Your task to perform on an android device: open app "WhatsApp Messenger" Image 0: 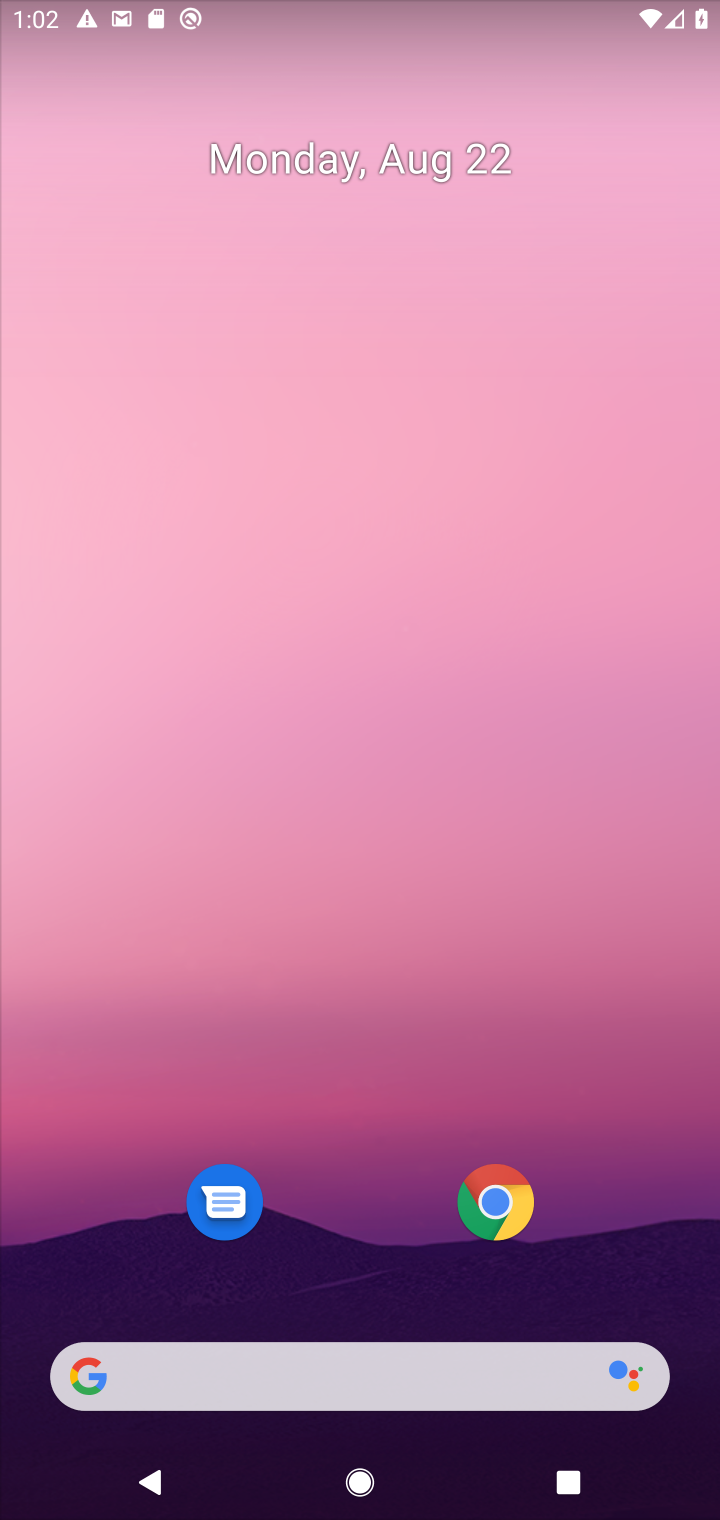
Step 0: drag from (394, 1131) to (391, 248)
Your task to perform on an android device: open app "WhatsApp Messenger" Image 1: 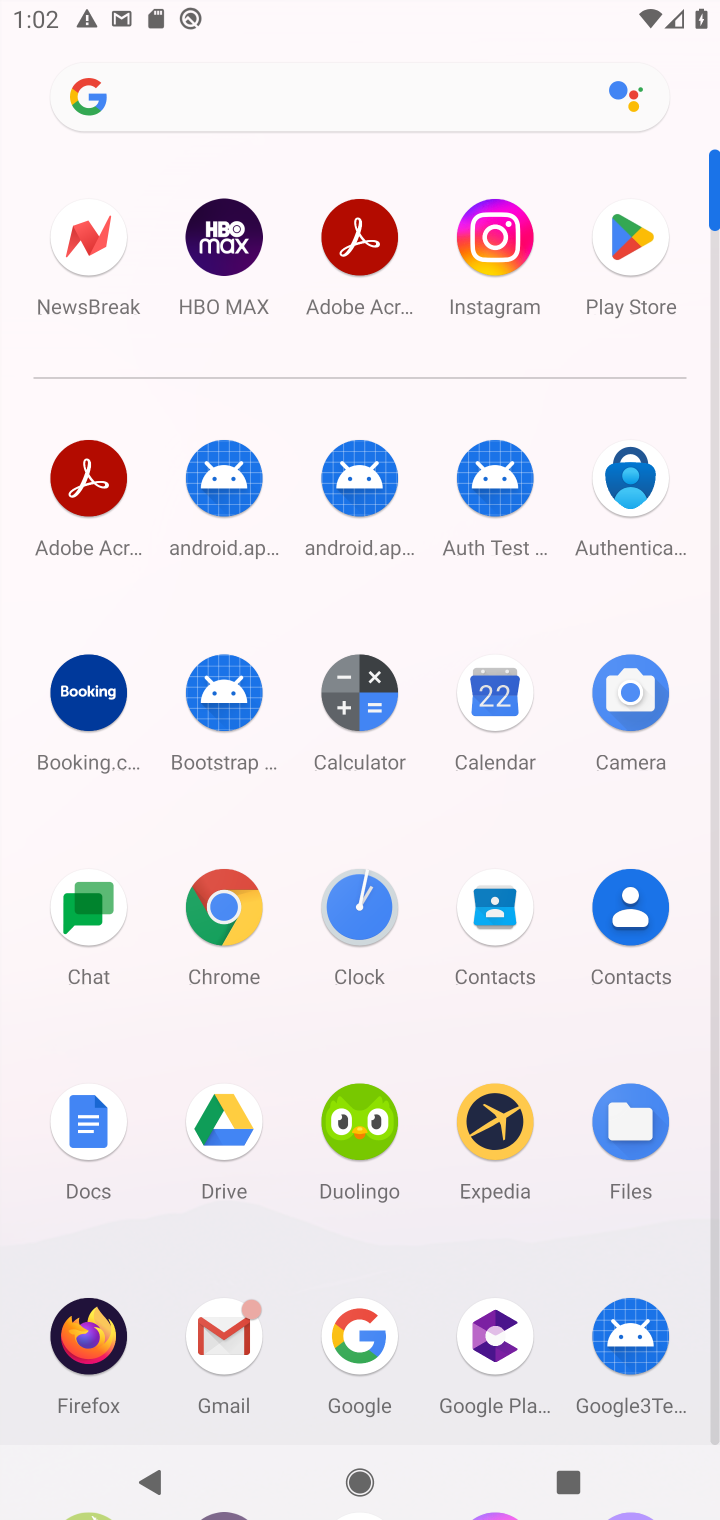
Step 1: click (631, 236)
Your task to perform on an android device: open app "WhatsApp Messenger" Image 2: 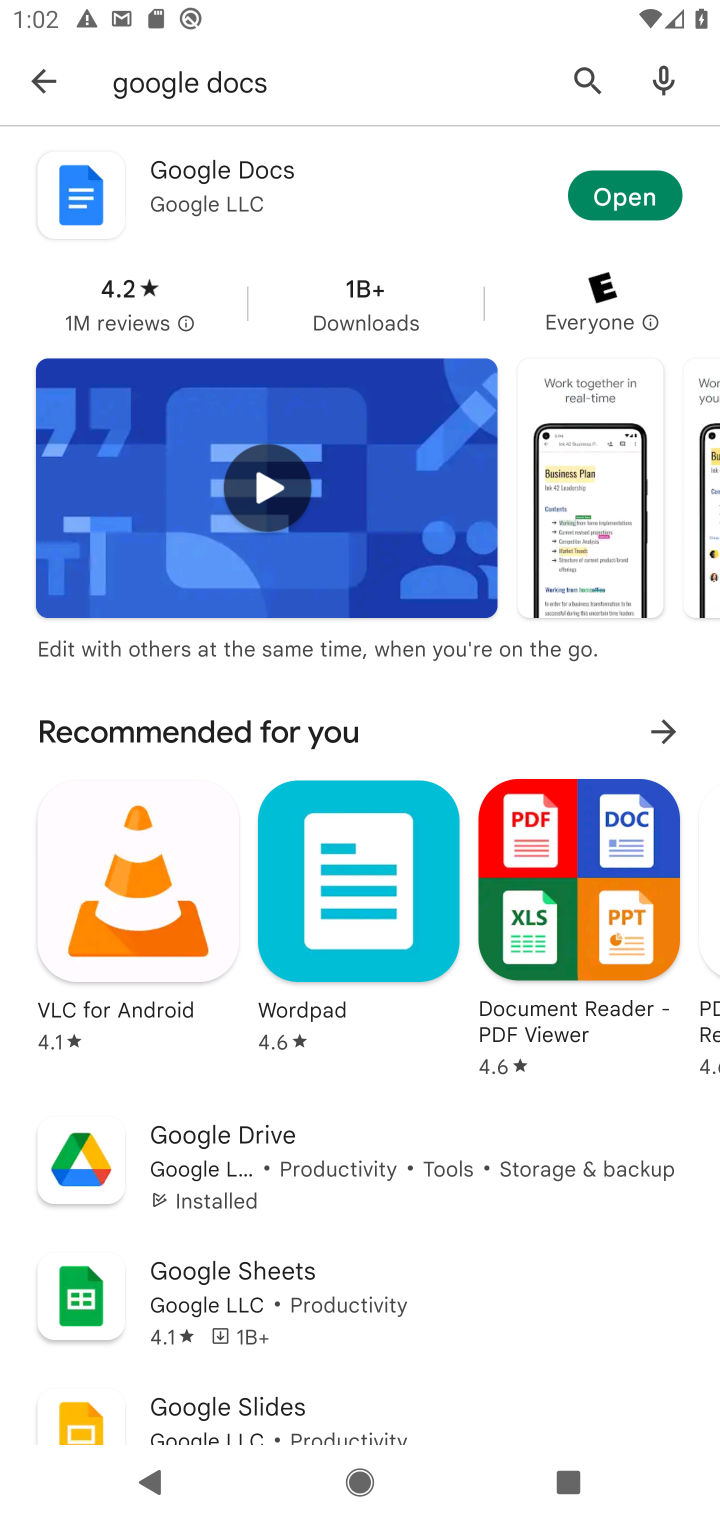
Step 2: click (581, 76)
Your task to perform on an android device: open app "WhatsApp Messenger" Image 3: 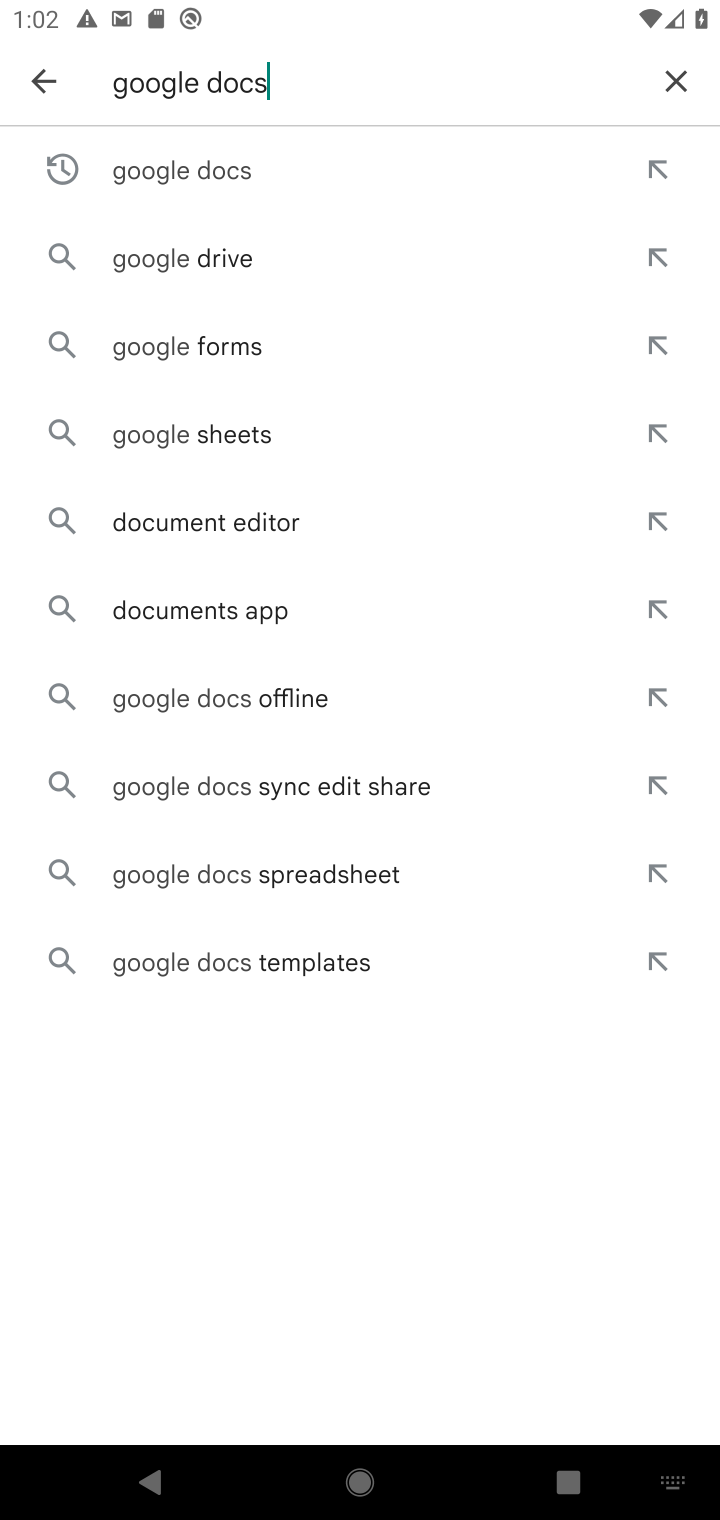
Step 3: click (673, 72)
Your task to perform on an android device: open app "WhatsApp Messenger" Image 4: 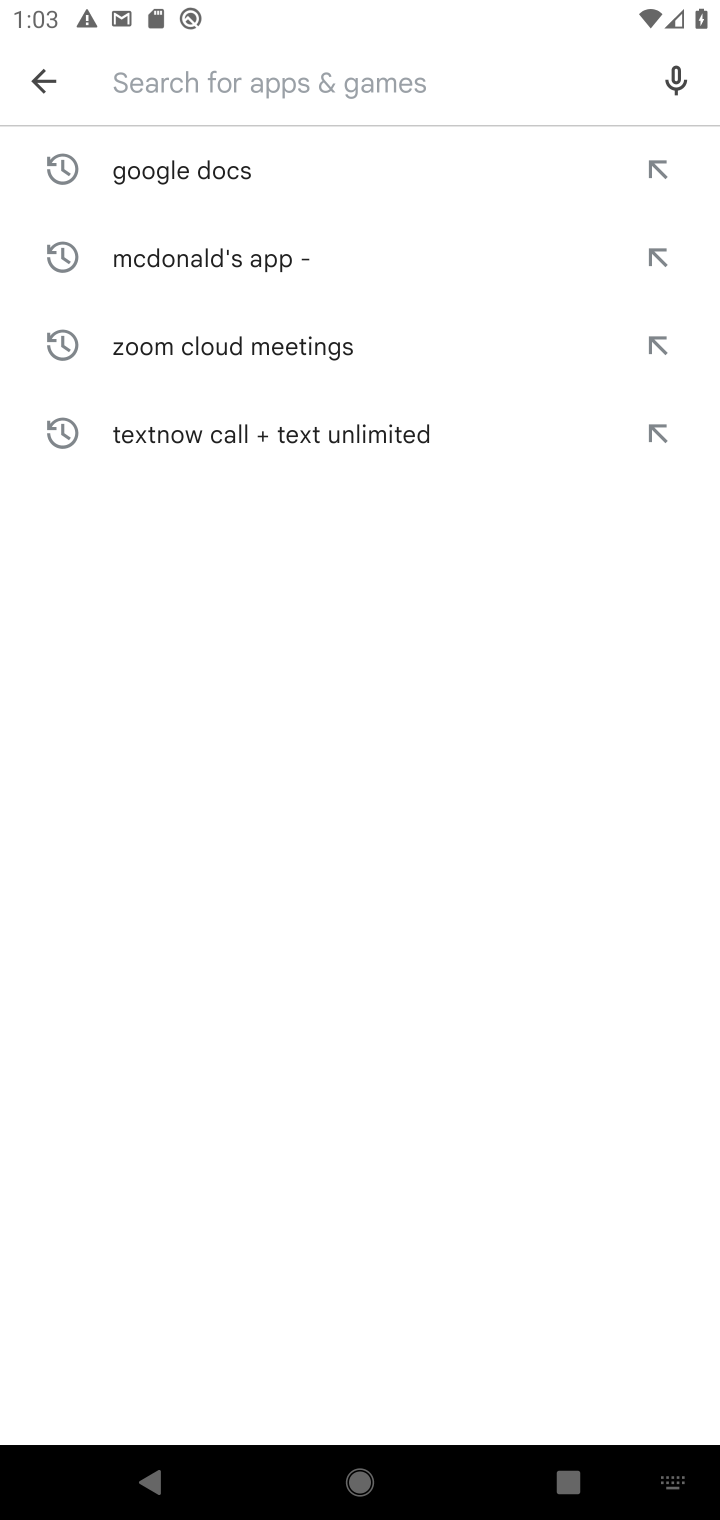
Step 4: type "WhatsApp Messenger"
Your task to perform on an android device: open app "WhatsApp Messenger" Image 5: 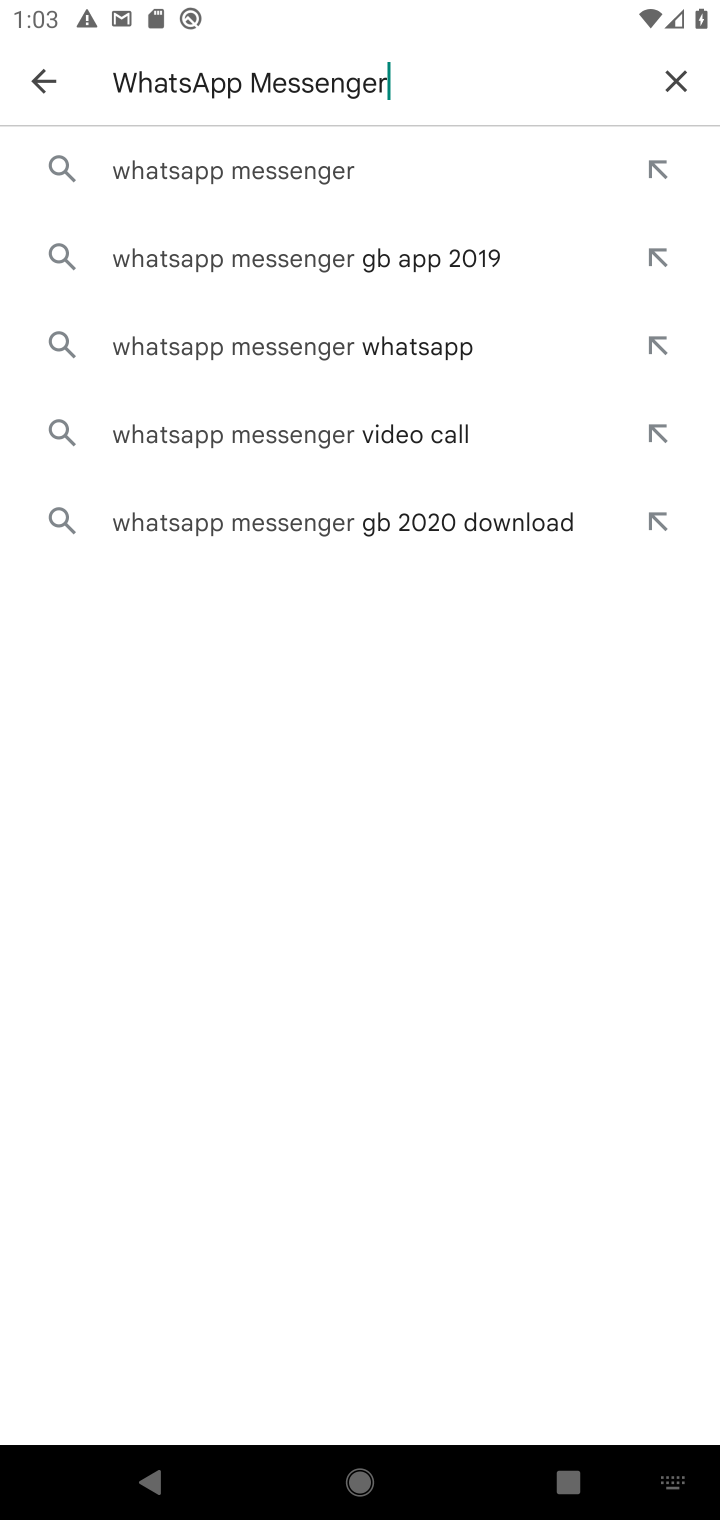
Step 5: click (260, 169)
Your task to perform on an android device: open app "WhatsApp Messenger" Image 6: 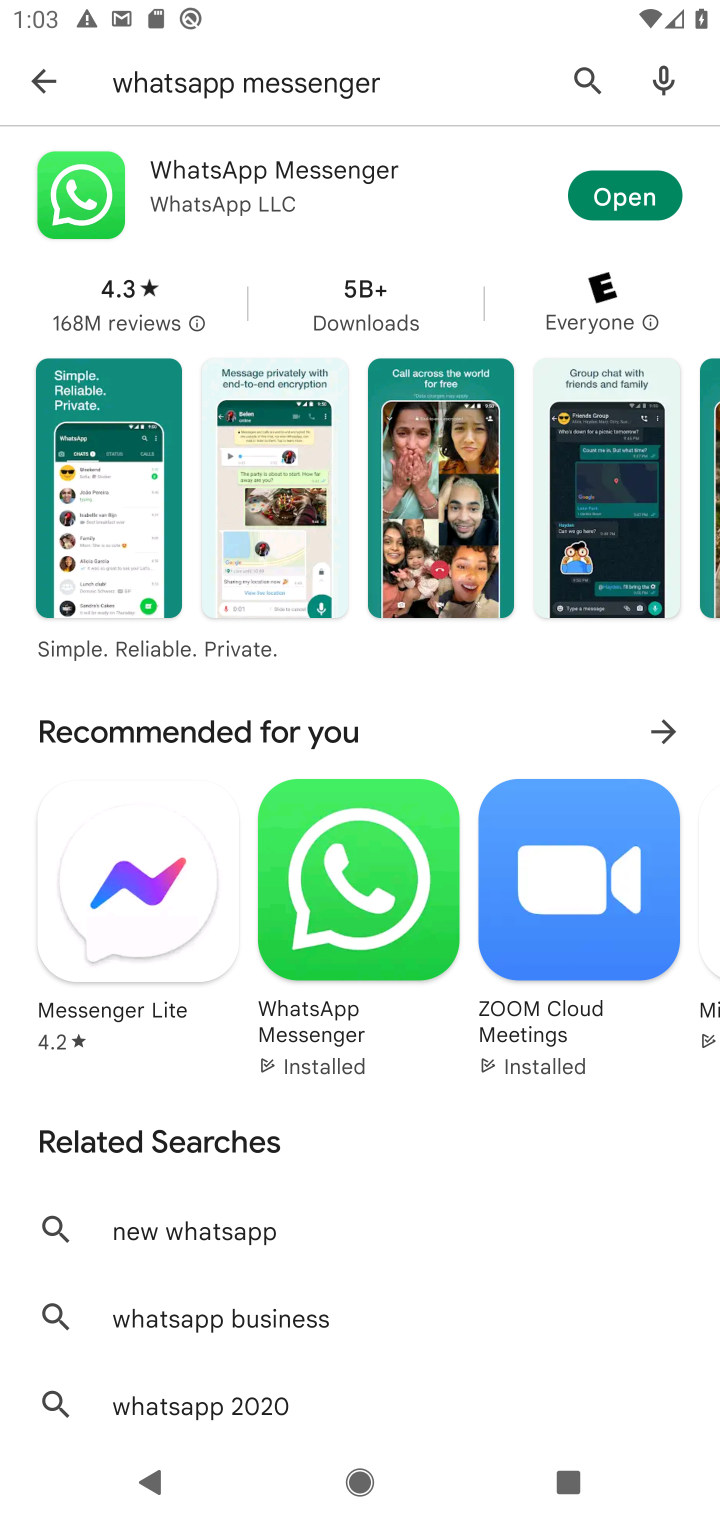
Step 6: click (635, 196)
Your task to perform on an android device: open app "WhatsApp Messenger" Image 7: 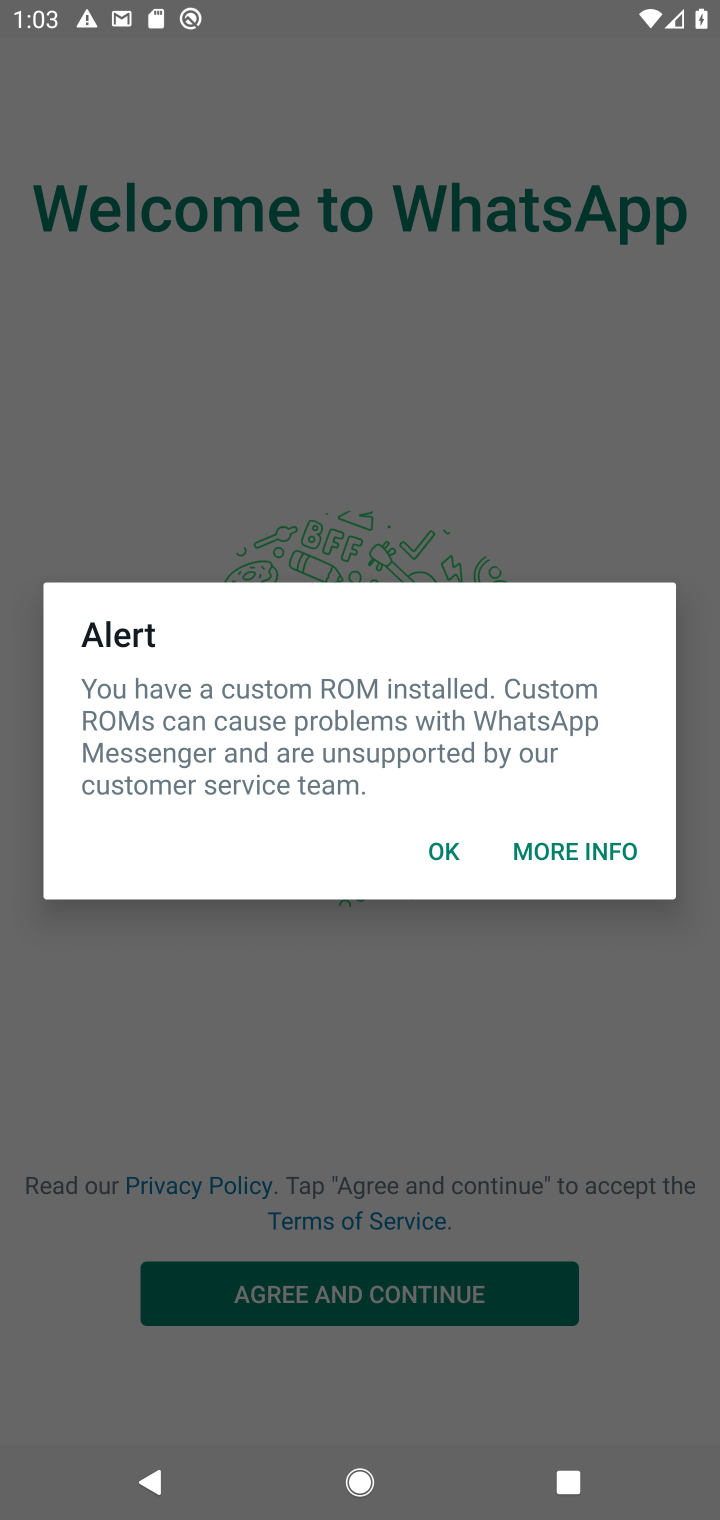
Step 7: task complete